Your task to perform on an android device: Find coffee shops on Maps Image 0: 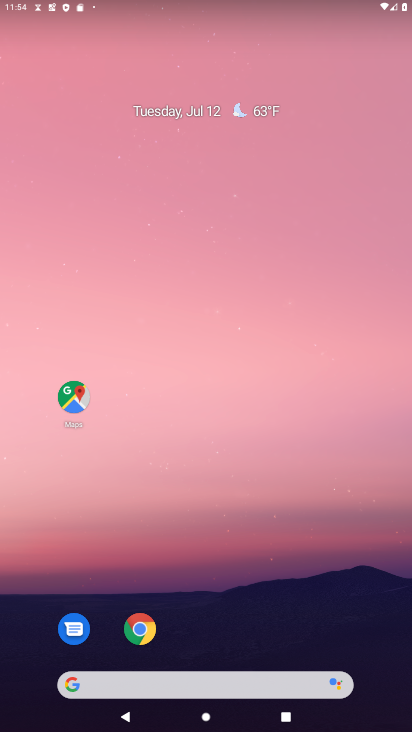
Step 0: drag from (247, 654) to (203, 237)
Your task to perform on an android device: Find coffee shops on Maps Image 1: 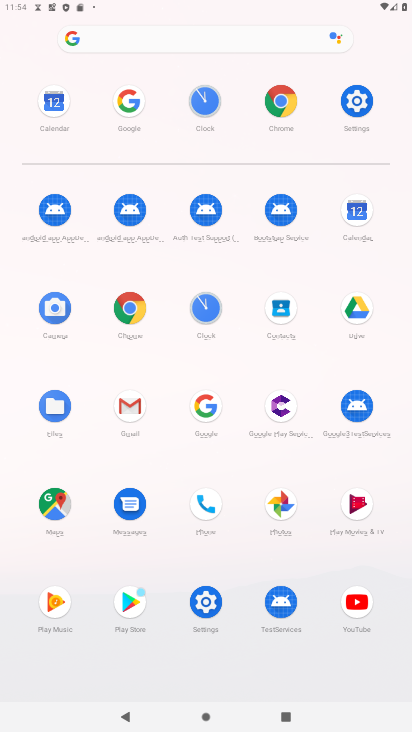
Step 1: click (45, 508)
Your task to perform on an android device: Find coffee shops on Maps Image 2: 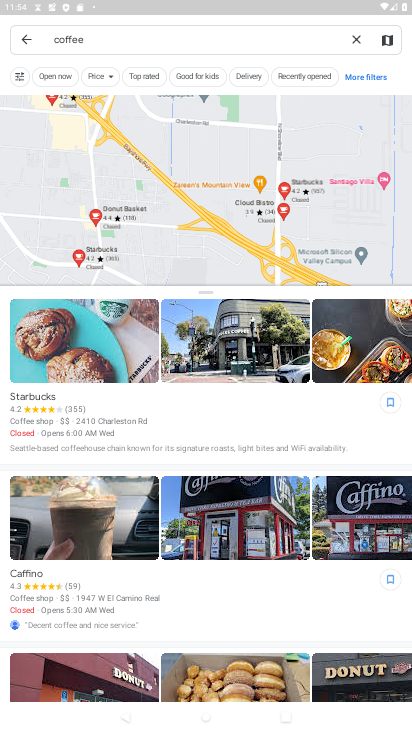
Step 2: task complete